Your task to perform on an android device: View the shopping cart on walmart.com. Add razer nari to the cart on walmart.com Image 0: 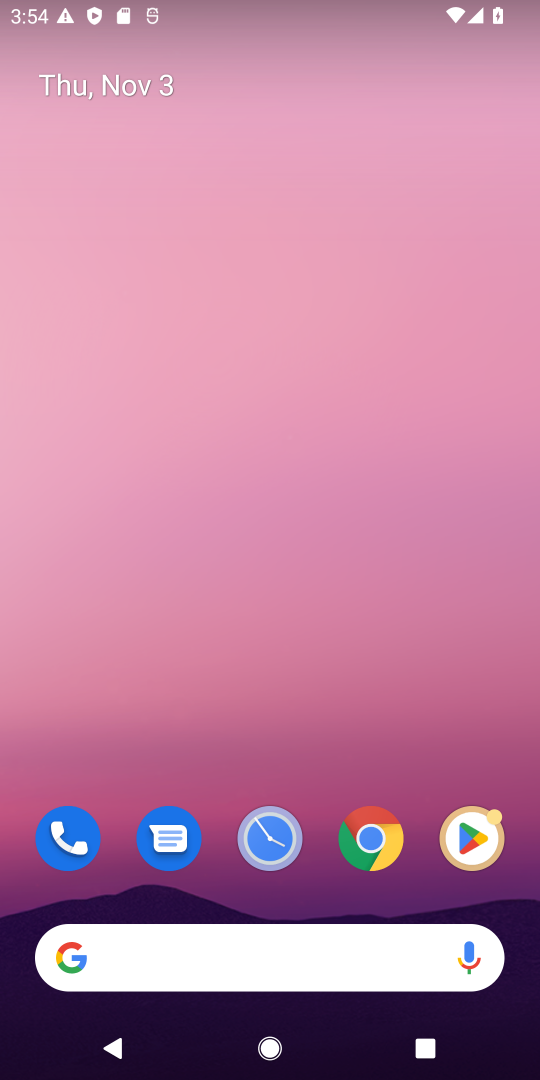
Step 0: drag from (328, 1021) to (354, 131)
Your task to perform on an android device: View the shopping cart on walmart.com. Add razer nari to the cart on walmart.com Image 1: 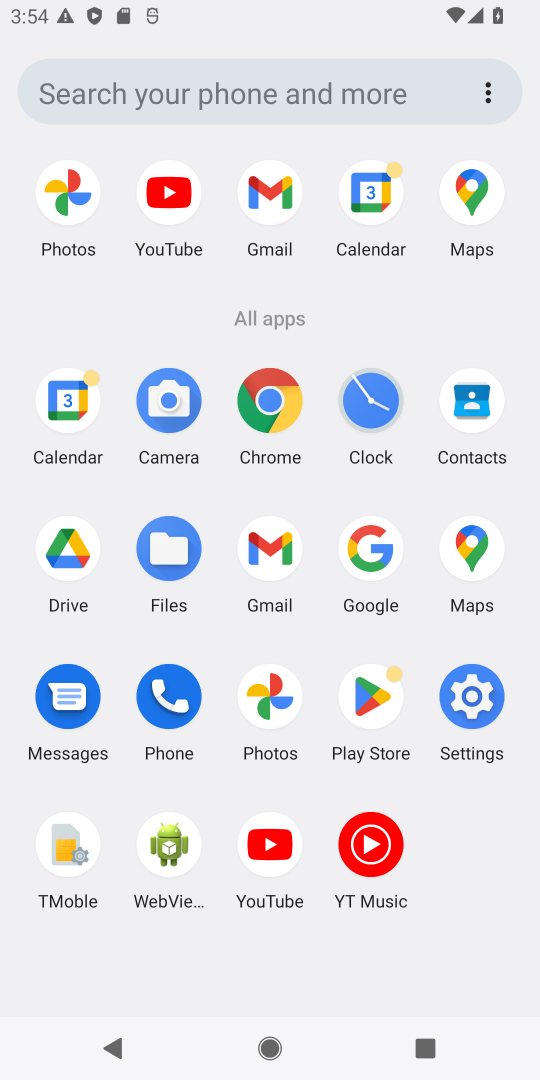
Step 1: click (276, 412)
Your task to perform on an android device: View the shopping cart on walmart.com. Add razer nari to the cart on walmart.com Image 2: 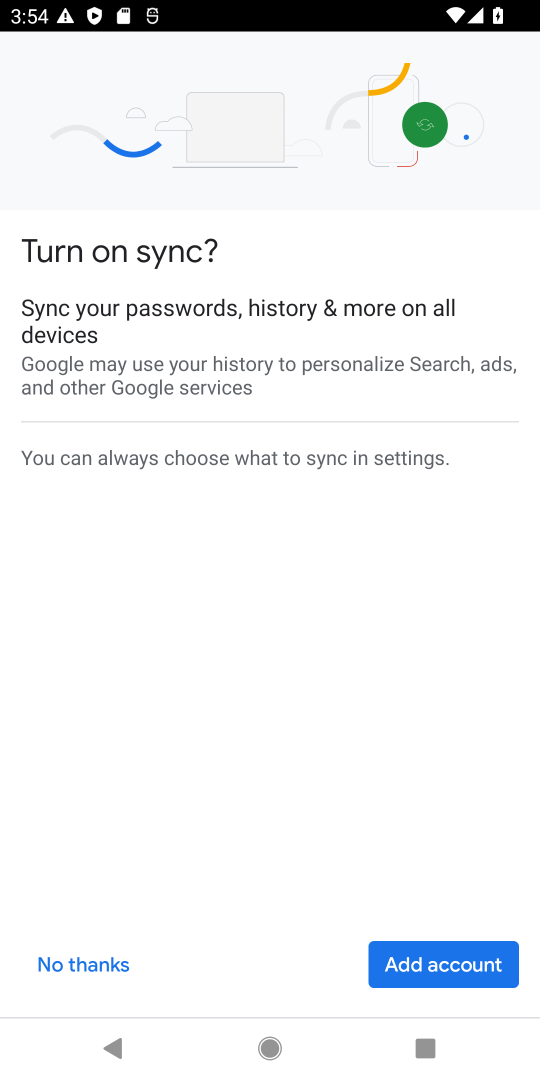
Step 2: click (450, 964)
Your task to perform on an android device: View the shopping cart on walmart.com. Add razer nari to the cart on walmart.com Image 3: 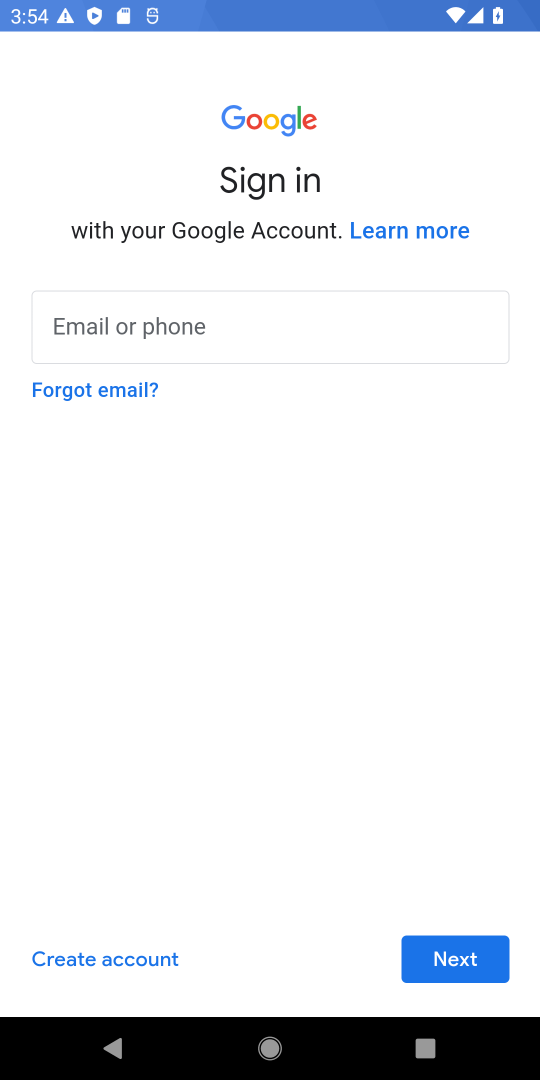
Step 3: click (449, 959)
Your task to perform on an android device: View the shopping cart on walmart.com. Add razer nari to the cart on walmart.com Image 4: 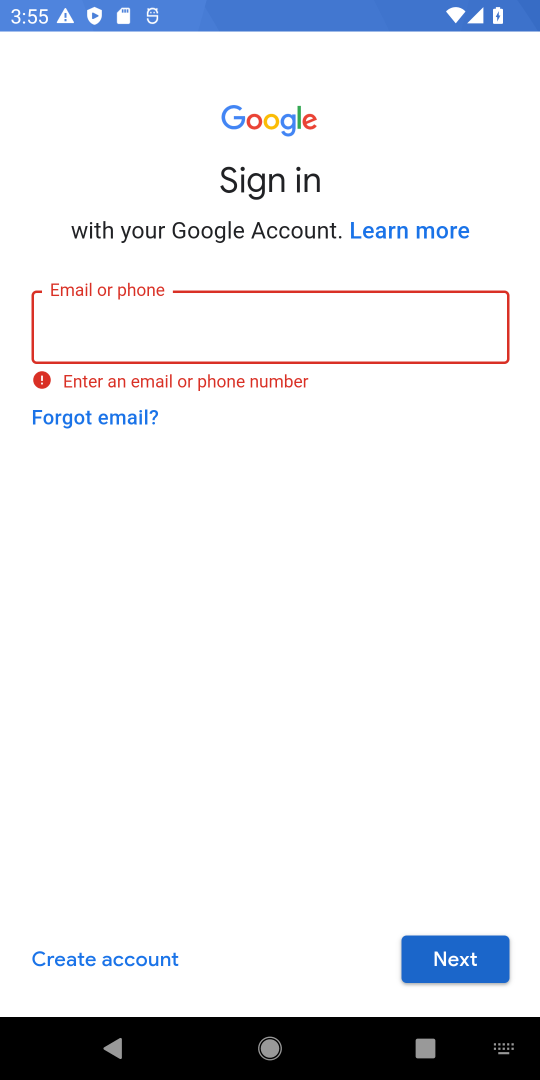
Step 4: task complete